Your task to perform on an android device: Show me productivity apps on the Play Store Image 0: 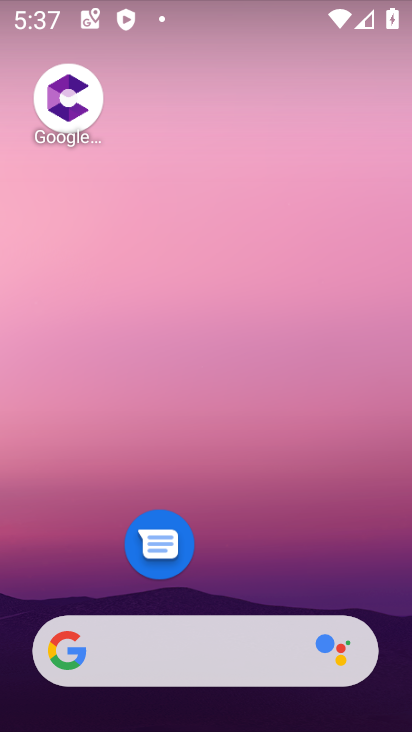
Step 0: drag from (200, 579) to (224, 39)
Your task to perform on an android device: Show me productivity apps on the Play Store Image 1: 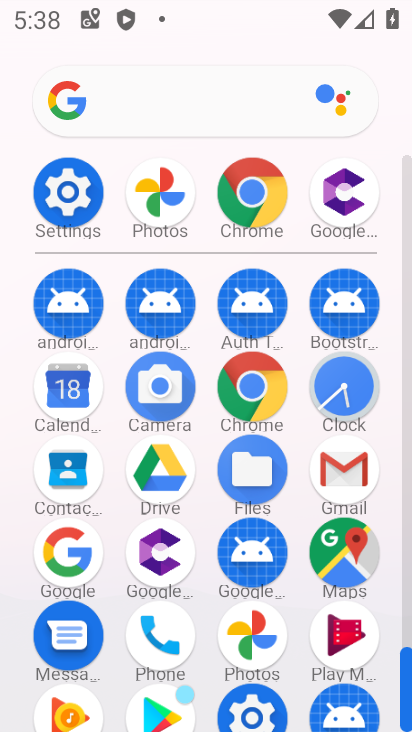
Step 1: click (172, 686)
Your task to perform on an android device: Show me productivity apps on the Play Store Image 2: 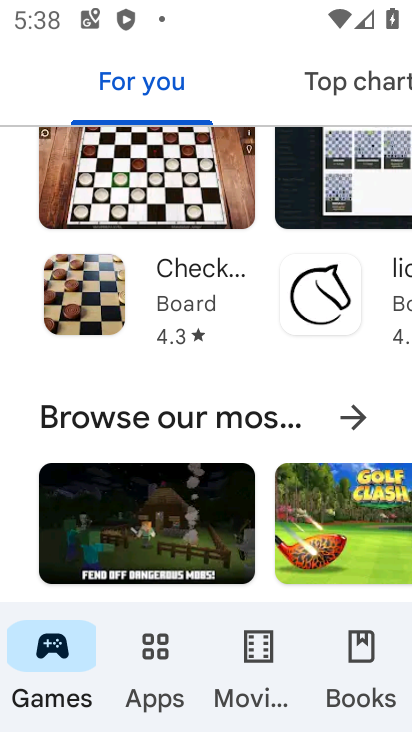
Step 2: click (145, 665)
Your task to perform on an android device: Show me productivity apps on the Play Store Image 3: 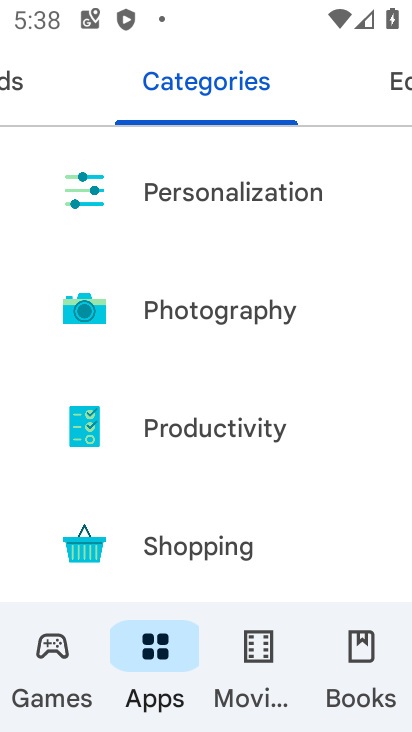
Step 3: click (198, 440)
Your task to perform on an android device: Show me productivity apps on the Play Store Image 4: 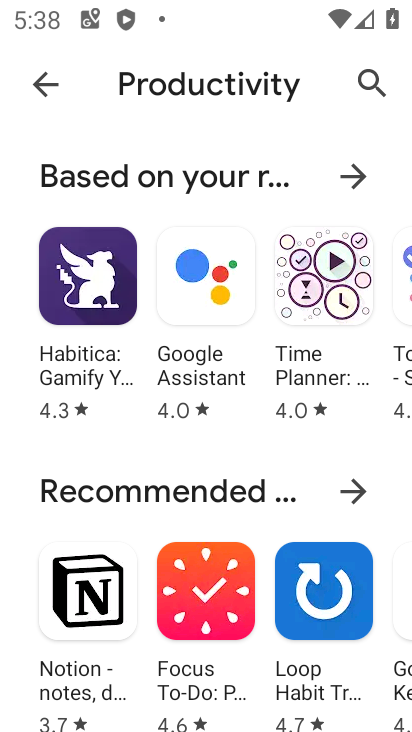
Step 4: task complete